Your task to perform on an android device: change the clock display to show seconds Image 0: 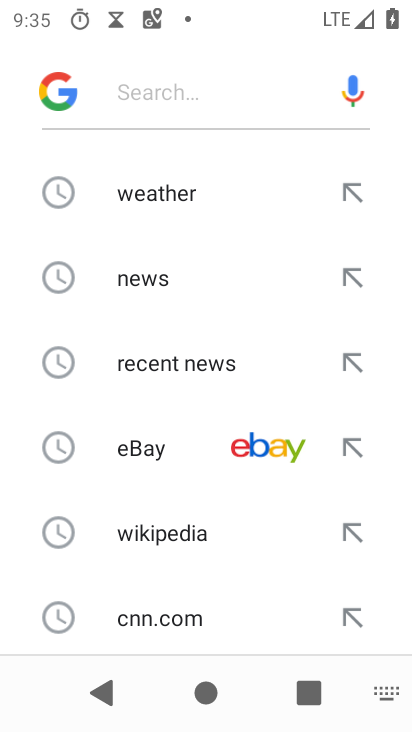
Step 0: press home button
Your task to perform on an android device: change the clock display to show seconds Image 1: 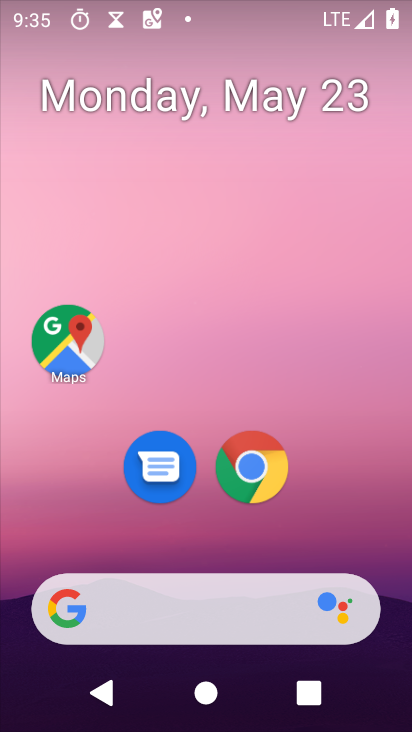
Step 1: drag from (339, 525) to (188, 12)
Your task to perform on an android device: change the clock display to show seconds Image 2: 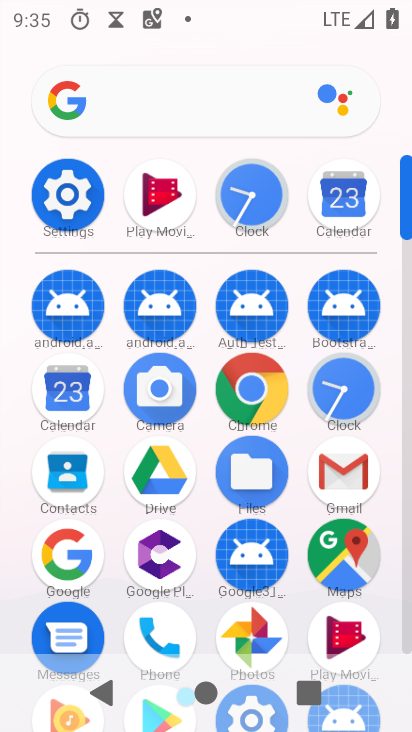
Step 2: click (356, 376)
Your task to perform on an android device: change the clock display to show seconds Image 3: 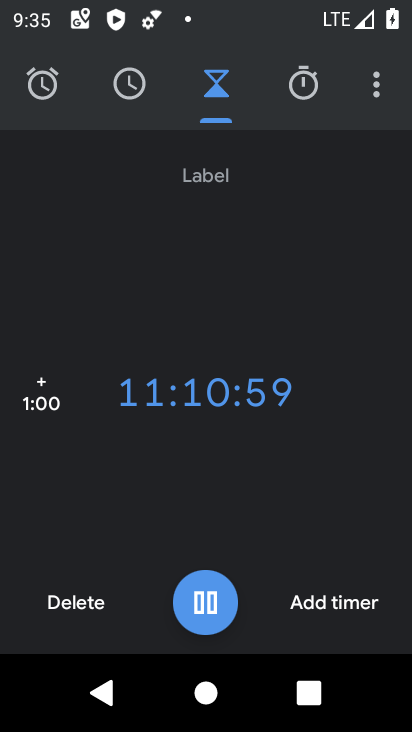
Step 3: click (382, 71)
Your task to perform on an android device: change the clock display to show seconds Image 4: 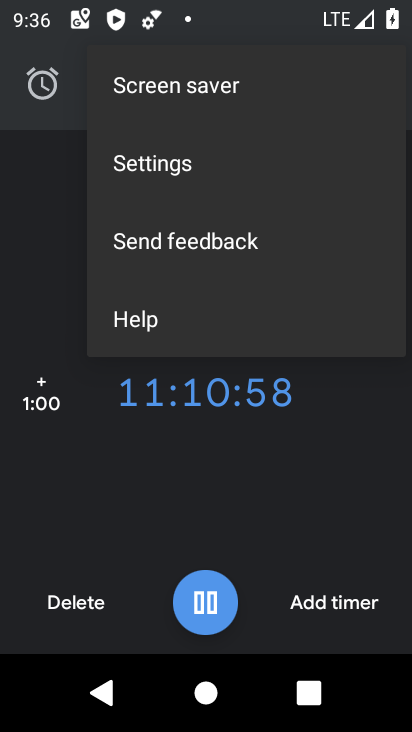
Step 4: click (289, 161)
Your task to perform on an android device: change the clock display to show seconds Image 5: 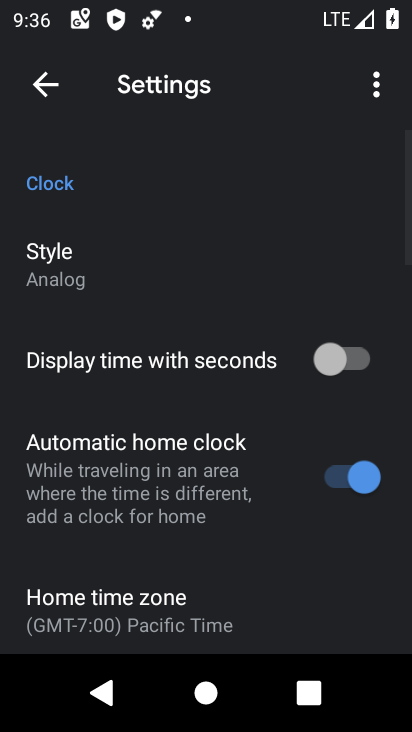
Step 5: drag from (152, 562) to (210, 346)
Your task to perform on an android device: change the clock display to show seconds Image 6: 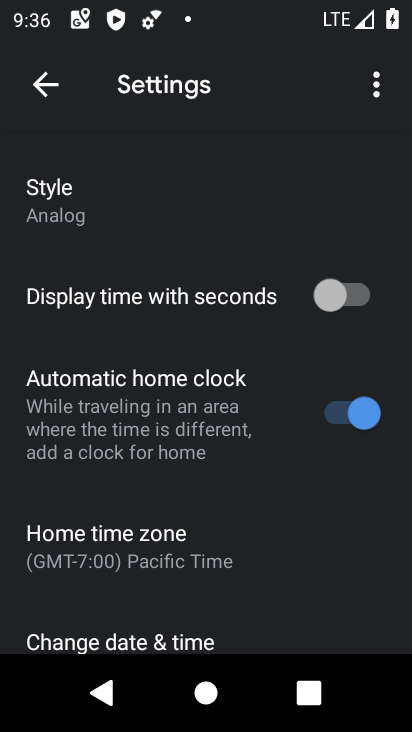
Step 6: click (323, 288)
Your task to perform on an android device: change the clock display to show seconds Image 7: 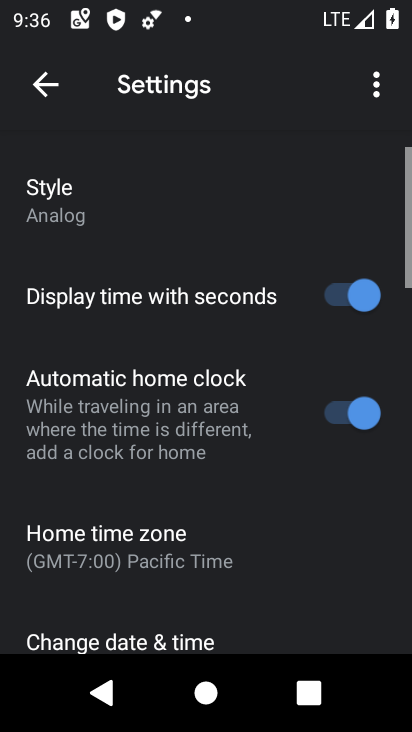
Step 7: task complete